Your task to perform on an android device: turn notification dots off Image 0: 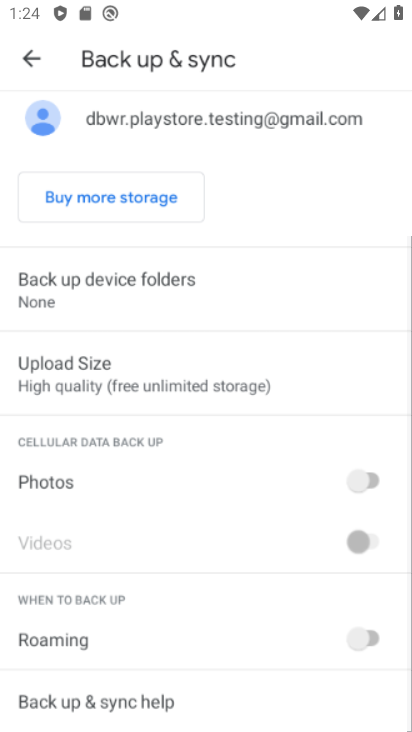
Step 0: drag from (260, 592) to (270, 301)
Your task to perform on an android device: turn notification dots off Image 1: 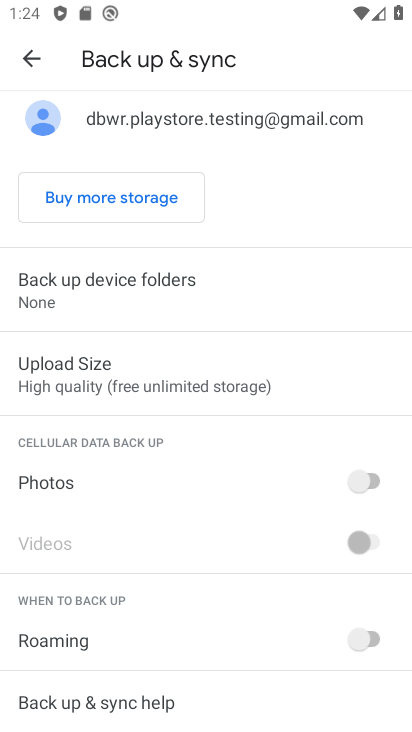
Step 1: press home button
Your task to perform on an android device: turn notification dots off Image 2: 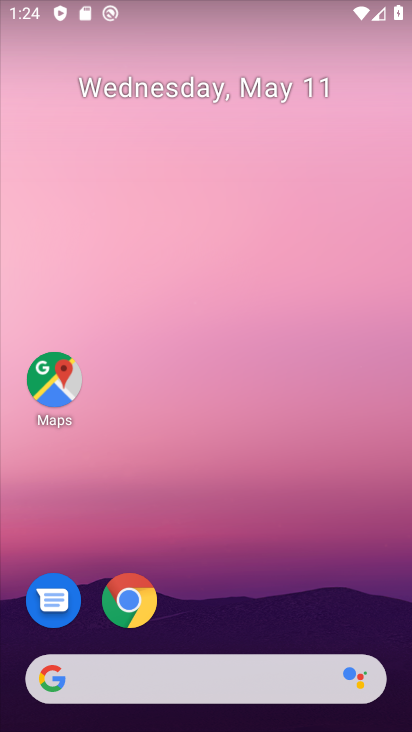
Step 2: drag from (247, 610) to (261, 219)
Your task to perform on an android device: turn notification dots off Image 3: 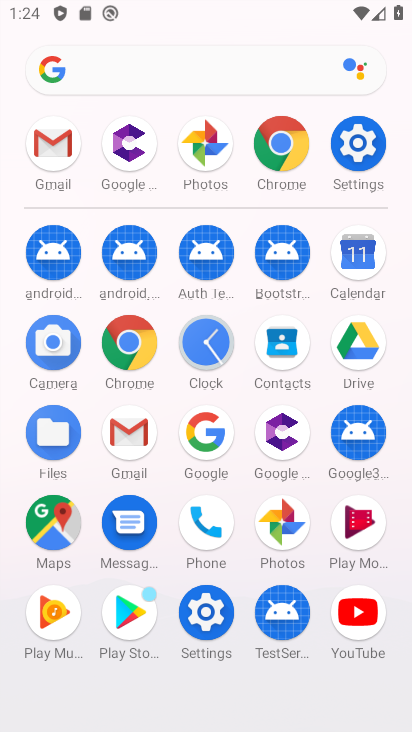
Step 3: click (357, 123)
Your task to perform on an android device: turn notification dots off Image 4: 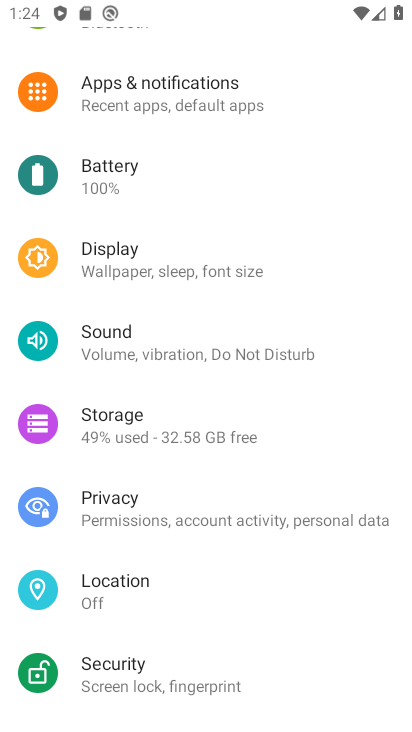
Step 4: drag from (190, 93) to (178, 538)
Your task to perform on an android device: turn notification dots off Image 5: 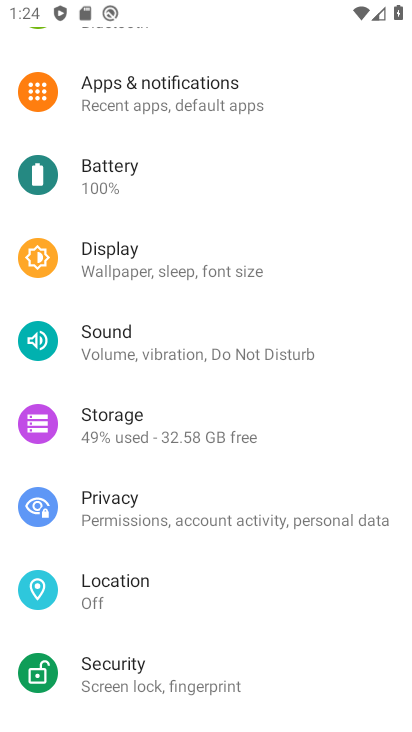
Step 5: drag from (207, 131) to (217, 602)
Your task to perform on an android device: turn notification dots off Image 6: 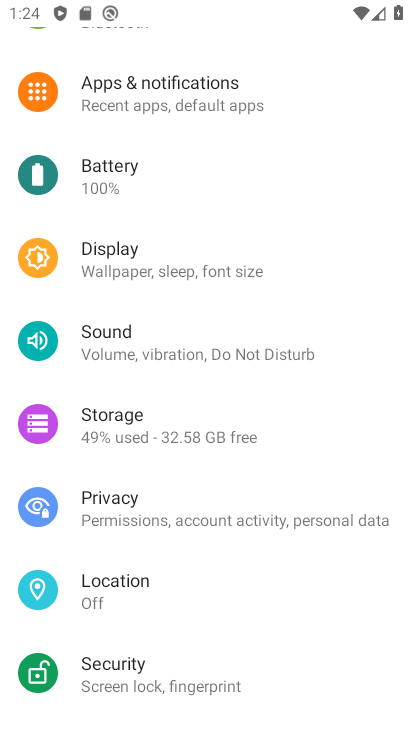
Step 6: drag from (193, 188) to (204, 544)
Your task to perform on an android device: turn notification dots off Image 7: 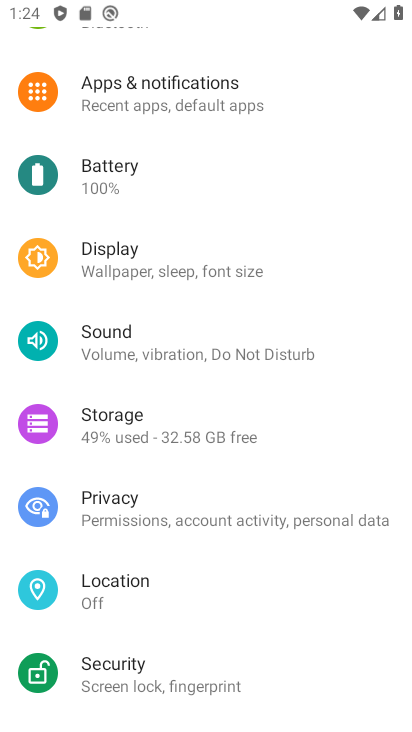
Step 7: drag from (234, 106) to (245, 430)
Your task to perform on an android device: turn notification dots off Image 8: 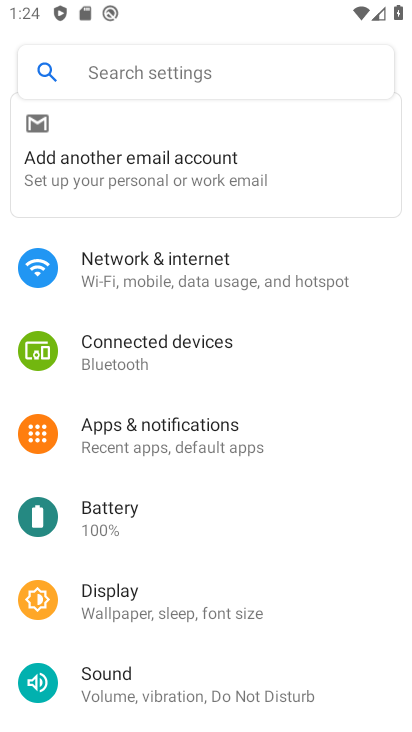
Step 8: drag from (181, 138) to (165, 436)
Your task to perform on an android device: turn notification dots off Image 9: 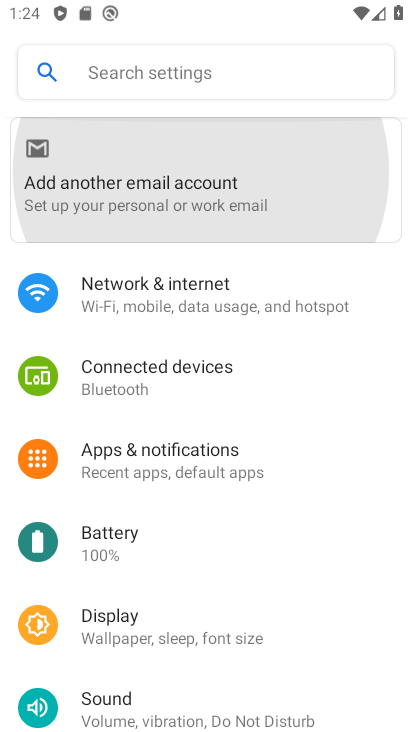
Step 9: drag from (169, 132) to (168, 381)
Your task to perform on an android device: turn notification dots off Image 10: 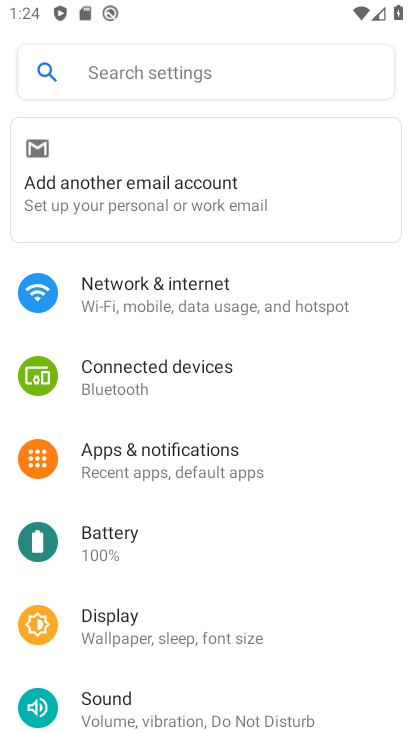
Step 10: click (149, 54)
Your task to perform on an android device: turn notification dots off Image 11: 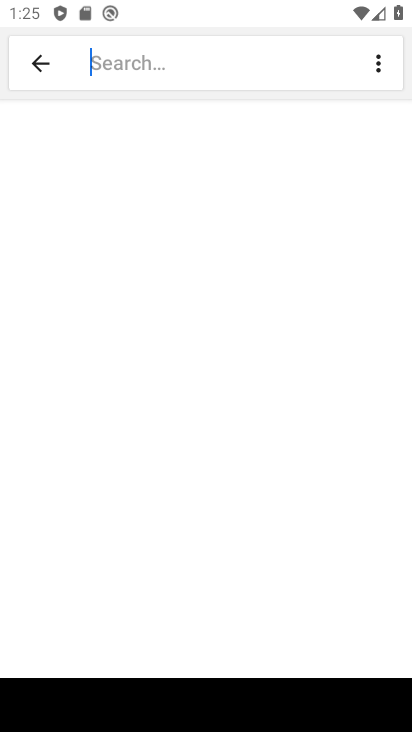
Step 11: click (216, 61)
Your task to perform on an android device: turn notification dots off Image 12: 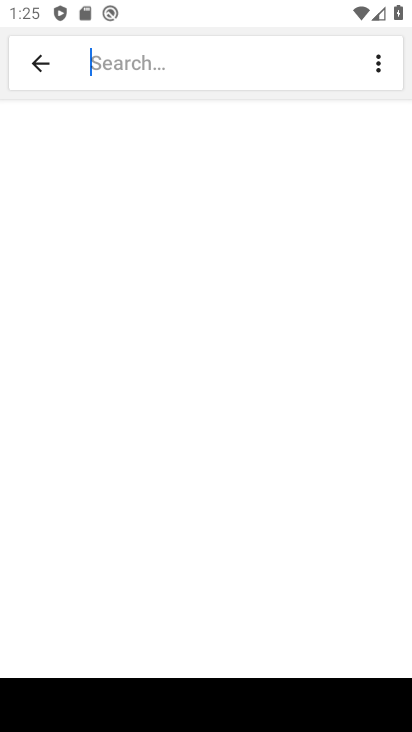
Step 12: type "notification dots "
Your task to perform on an android device: turn notification dots off Image 13: 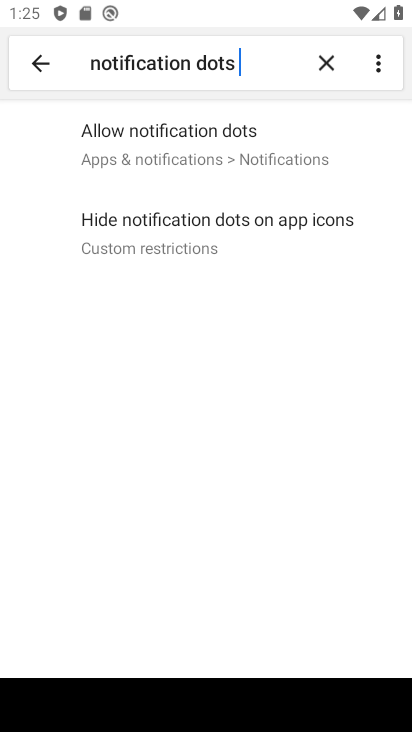
Step 13: click (246, 121)
Your task to perform on an android device: turn notification dots off Image 14: 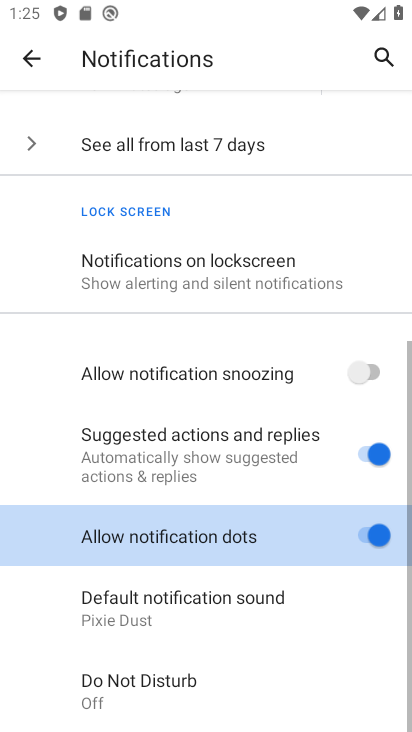
Step 14: click (372, 534)
Your task to perform on an android device: turn notification dots off Image 15: 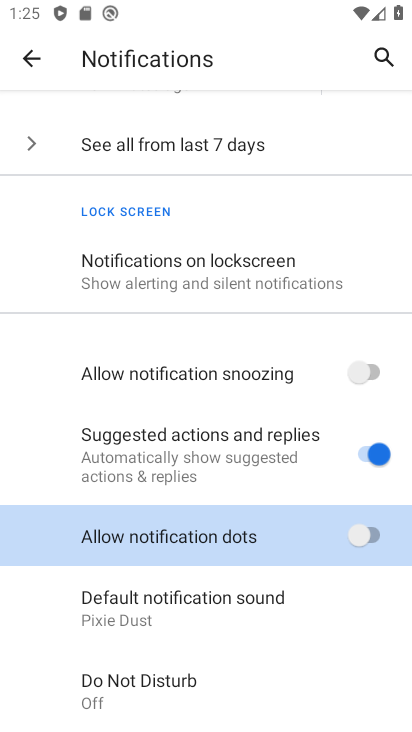
Step 15: task complete